Your task to perform on an android device: Go to calendar. Show me events next week Image 0: 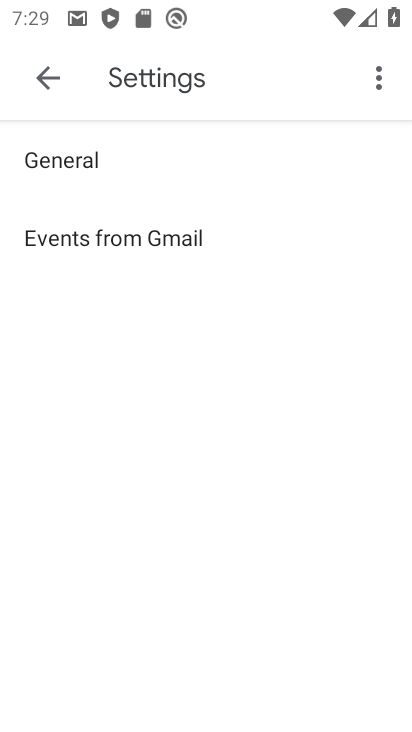
Step 0: press home button
Your task to perform on an android device: Go to calendar. Show me events next week Image 1: 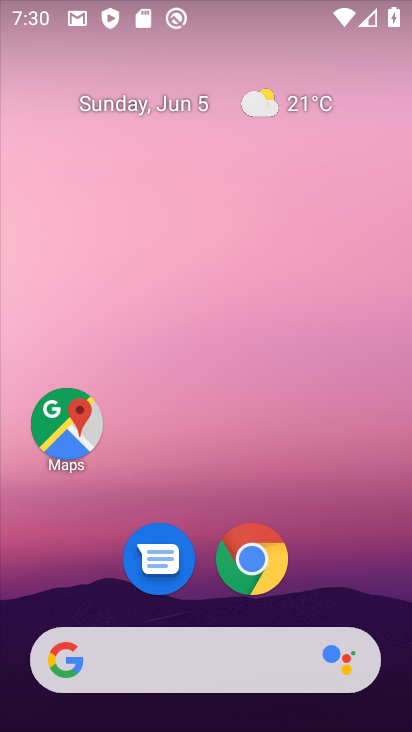
Step 1: drag from (195, 617) to (78, 11)
Your task to perform on an android device: Go to calendar. Show me events next week Image 2: 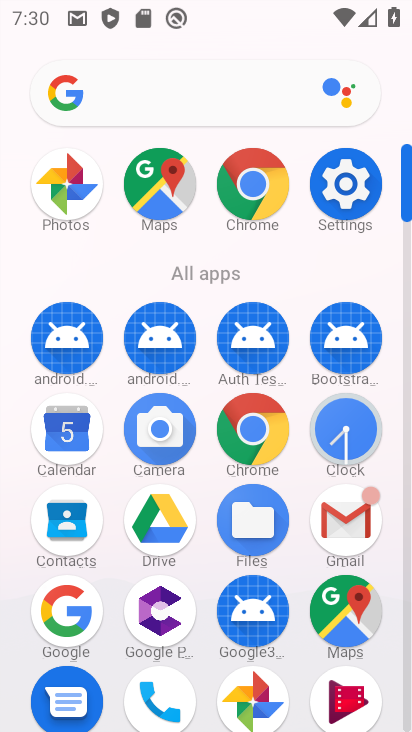
Step 2: click (64, 441)
Your task to perform on an android device: Go to calendar. Show me events next week Image 3: 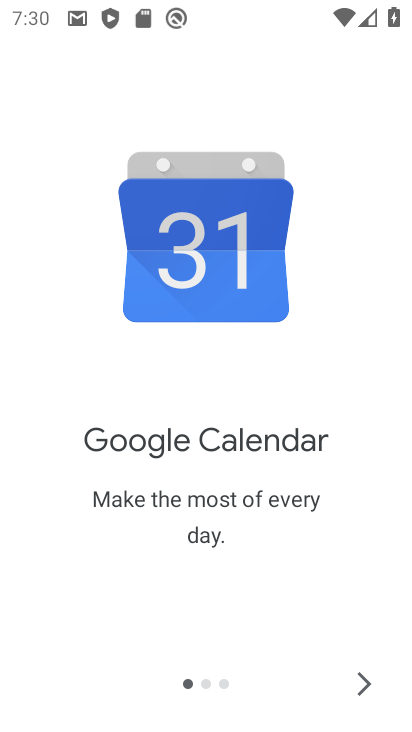
Step 3: click (359, 688)
Your task to perform on an android device: Go to calendar. Show me events next week Image 4: 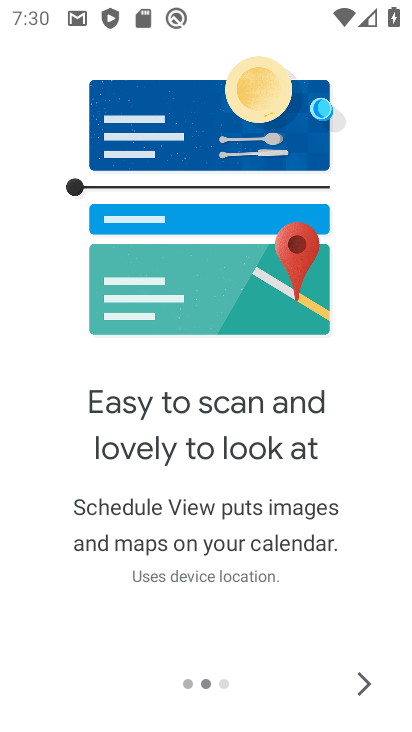
Step 4: click (359, 688)
Your task to perform on an android device: Go to calendar. Show me events next week Image 5: 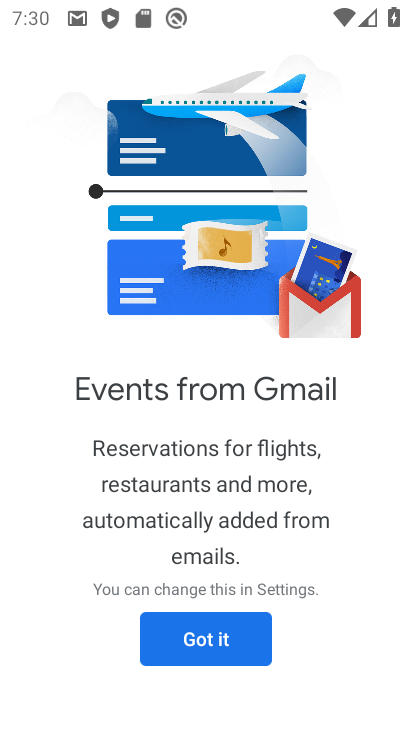
Step 5: click (359, 688)
Your task to perform on an android device: Go to calendar. Show me events next week Image 6: 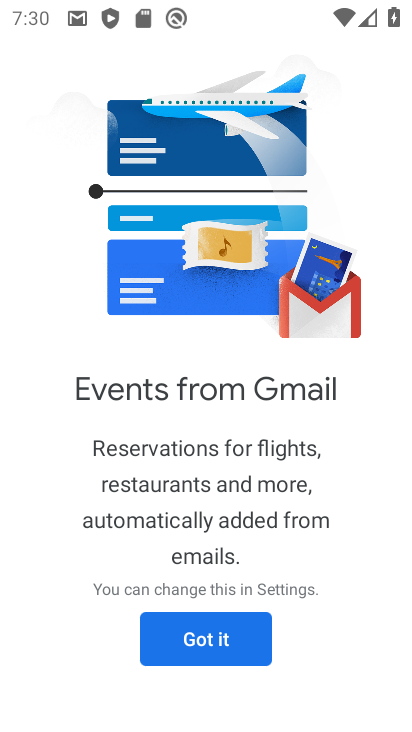
Step 6: click (220, 654)
Your task to perform on an android device: Go to calendar. Show me events next week Image 7: 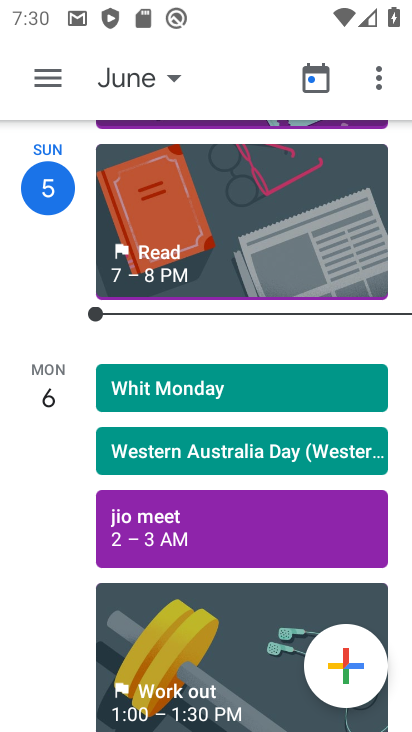
Step 7: click (304, 82)
Your task to perform on an android device: Go to calendar. Show me events next week Image 8: 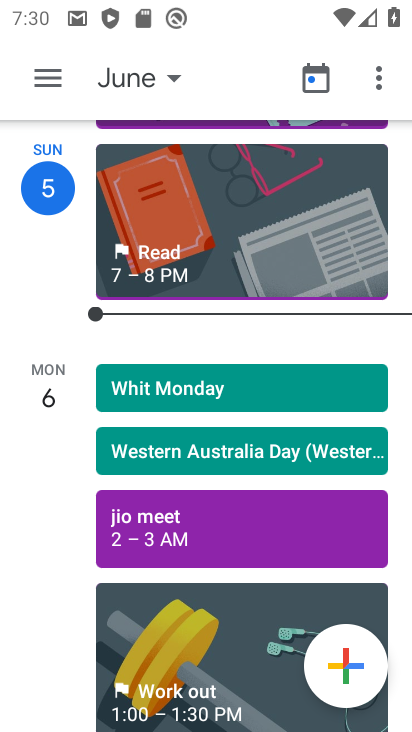
Step 8: click (35, 85)
Your task to perform on an android device: Go to calendar. Show me events next week Image 9: 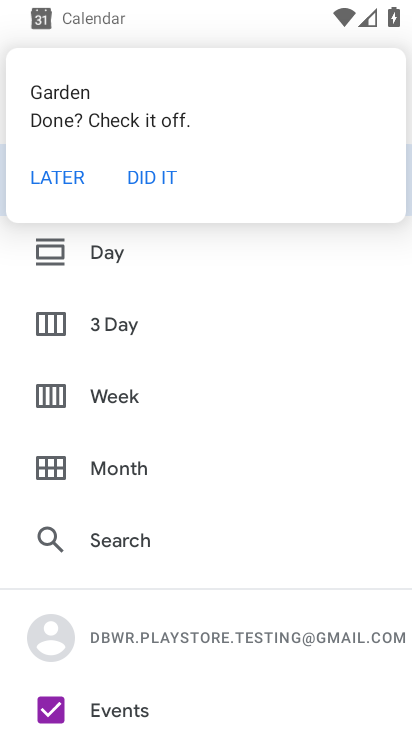
Step 9: click (148, 397)
Your task to perform on an android device: Go to calendar. Show me events next week Image 10: 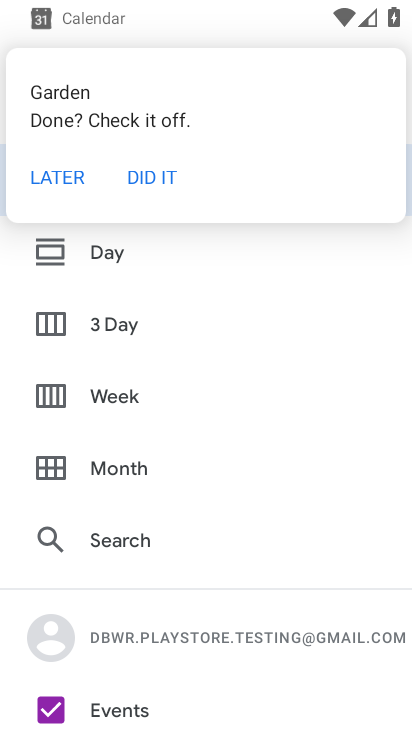
Step 10: click (148, 397)
Your task to perform on an android device: Go to calendar. Show me events next week Image 11: 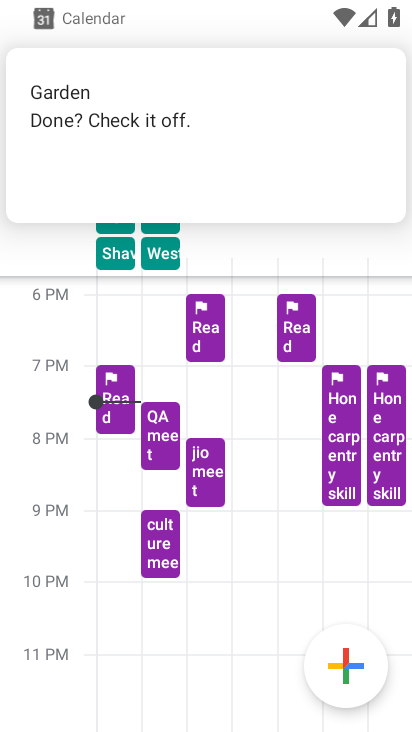
Step 11: click (165, 177)
Your task to perform on an android device: Go to calendar. Show me events next week Image 12: 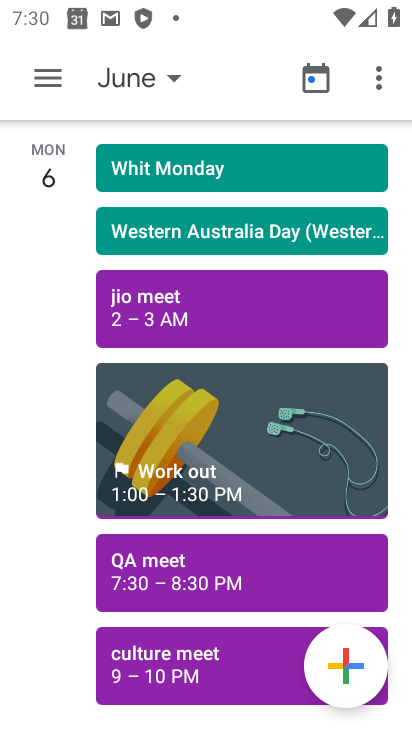
Step 12: click (53, 85)
Your task to perform on an android device: Go to calendar. Show me events next week Image 13: 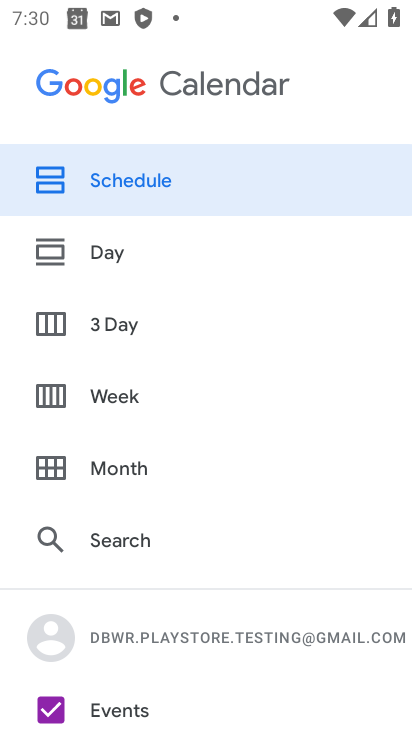
Step 13: click (132, 383)
Your task to perform on an android device: Go to calendar. Show me events next week Image 14: 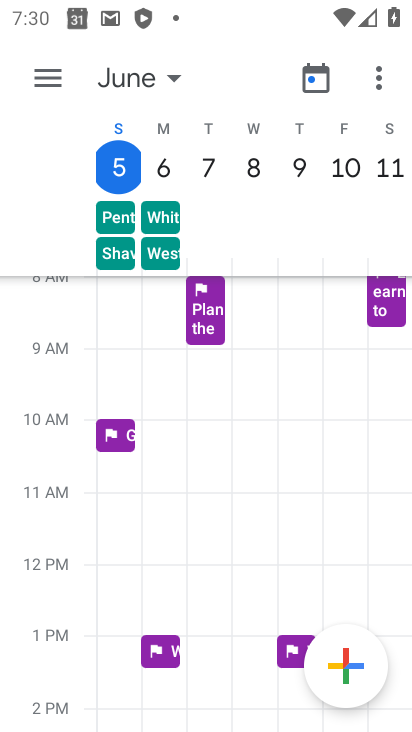
Step 14: task complete